Your task to perform on an android device: Search for vegetarian restaurants on Maps Image 0: 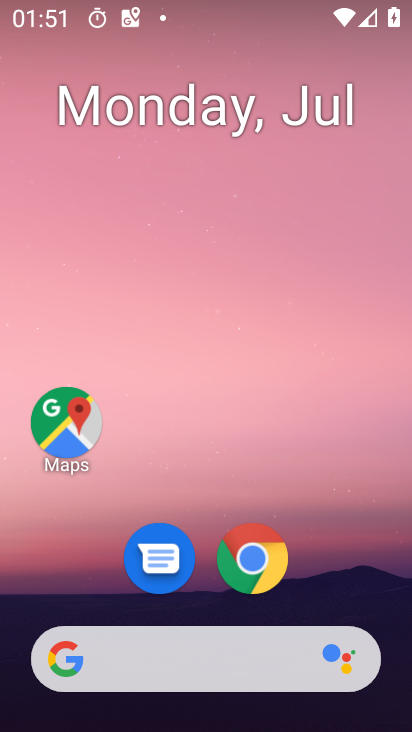
Step 0: click (61, 415)
Your task to perform on an android device: Search for vegetarian restaurants on Maps Image 1: 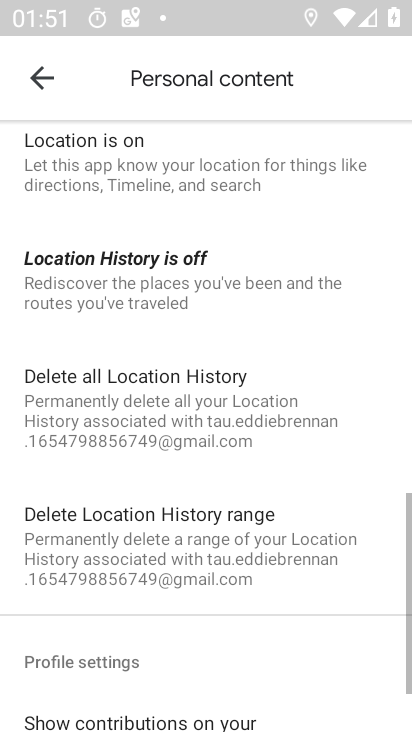
Step 1: click (43, 84)
Your task to perform on an android device: Search for vegetarian restaurants on Maps Image 2: 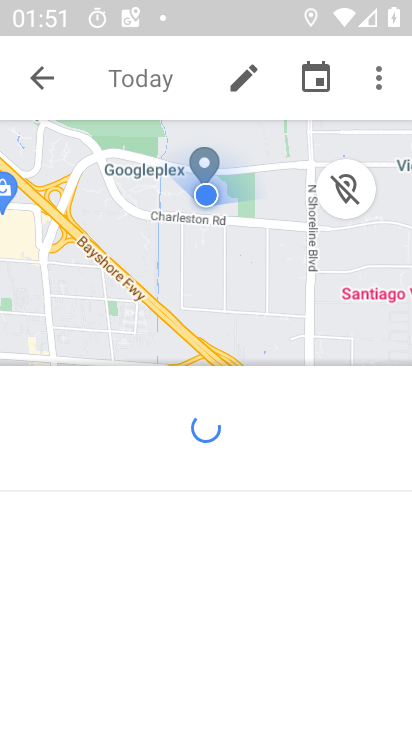
Step 2: click (54, 82)
Your task to perform on an android device: Search for vegetarian restaurants on Maps Image 3: 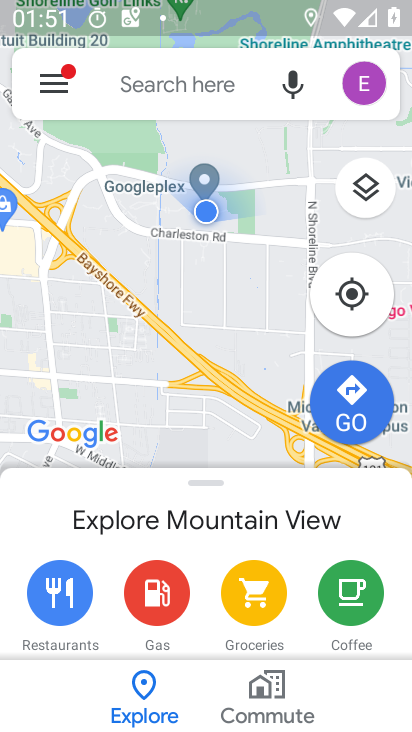
Step 3: click (141, 74)
Your task to perform on an android device: Search for vegetarian restaurants on Maps Image 4: 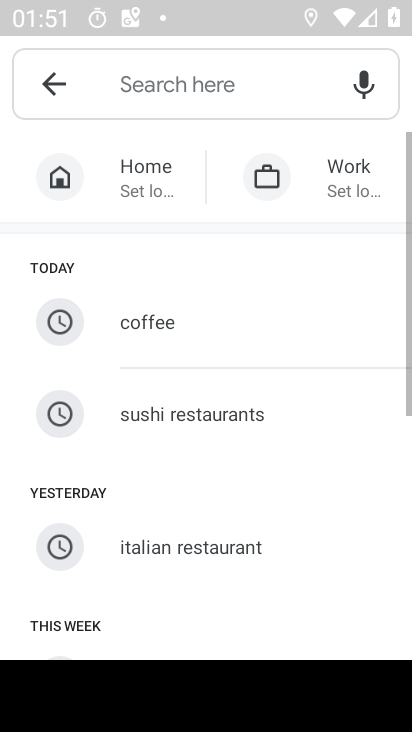
Step 4: drag from (170, 593) to (235, 113)
Your task to perform on an android device: Search for vegetarian restaurants on Maps Image 5: 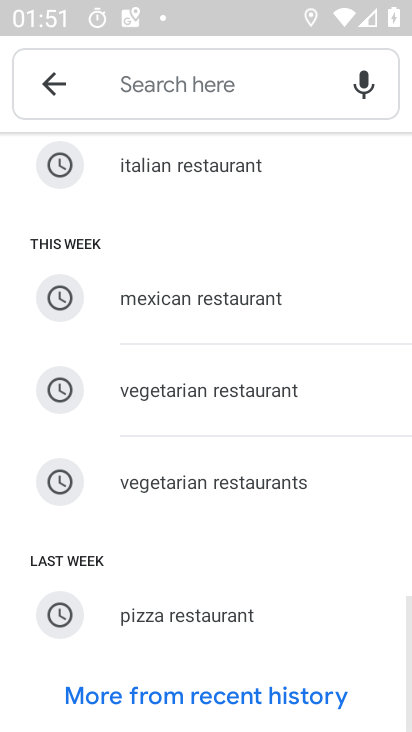
Step 5: click (188, 487)
Your task to perform on an android device: Search for vegetarian restaurants on Maps Image 6: 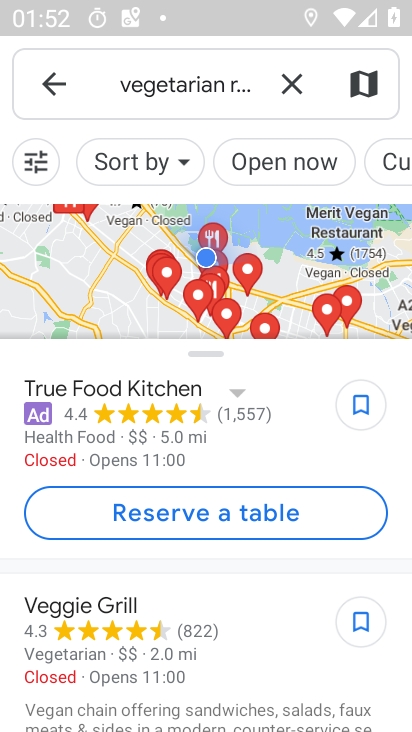
Step 6: task complete